Your task to perform on an android device: Open the phone app and click the voicemail tab. Image 0: 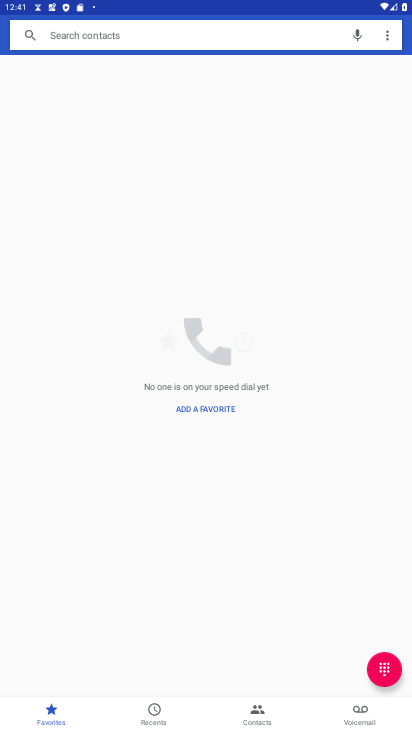
Step 0: press home button
Your task to perform on an android device: Open the phone app and click the voicemail tab. Image 1: 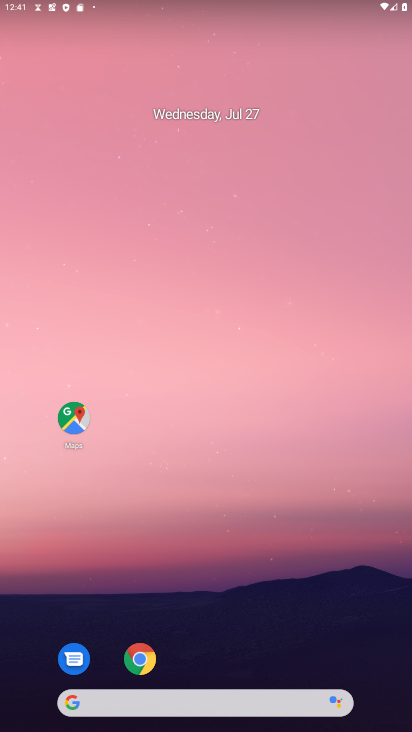
Step 1: drag from (222, 675) to (268, 89)
Your task to perform on an android device: Open the phone app and click the voicemail tab. Image 2: 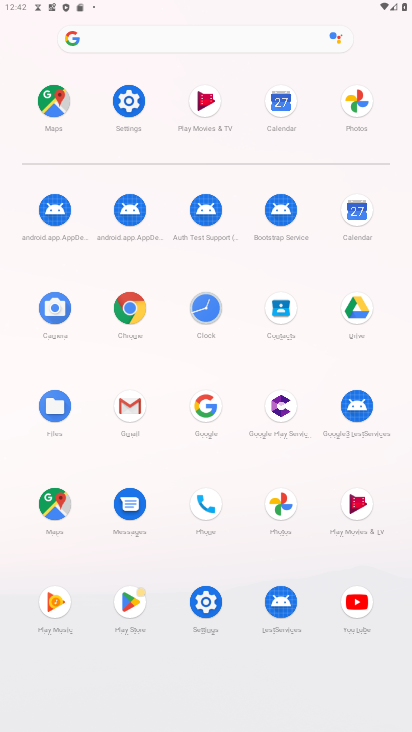
Step 2: click (206, 502)
Your task to perform on an android device: Open the phone app and click the voicemail tab. Image 3: 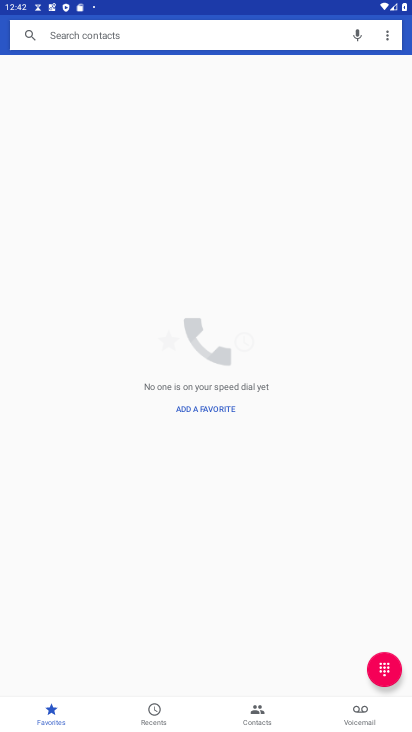
Step 3: click (359, 705)
Your task to perform on an android device: Open the phone app and click the voicemail tab. Image 4: 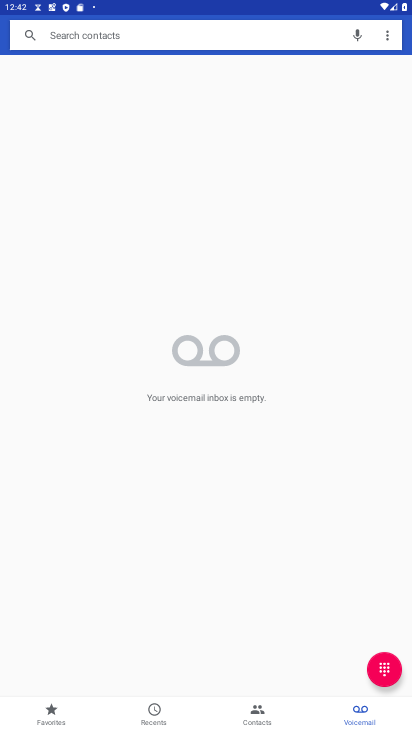
Step 4: task complete